Your task to perform on an android device: Go to ESPN.com Image 0: 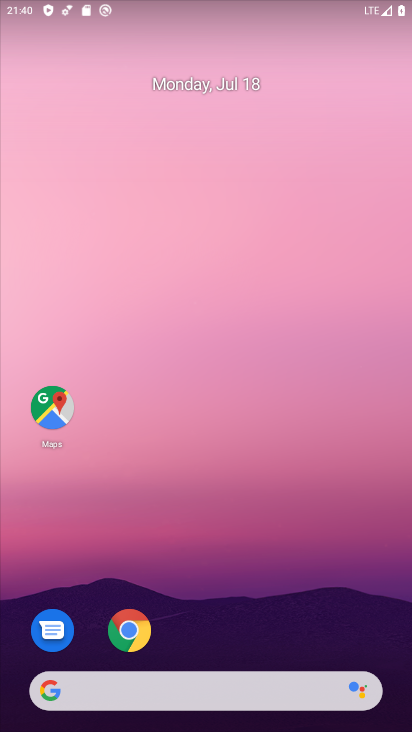
Step 0: click (122, 631)
Your task to perform on an android device: Go to ESPN.com Image 1: 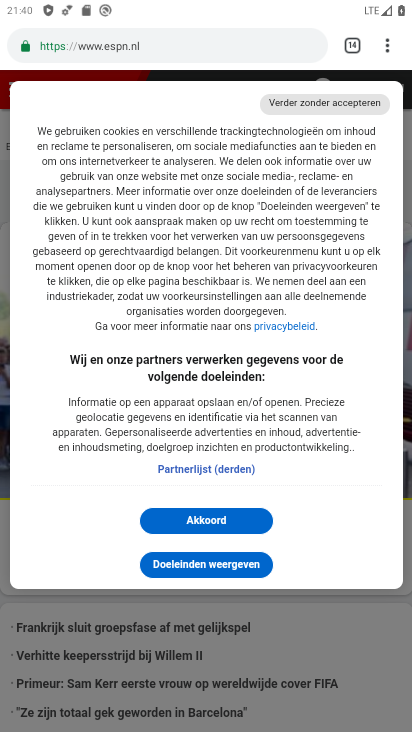
Step 1: click (393, 47)
Your task to perform on an android device: Go to ESPN.com Image 2: 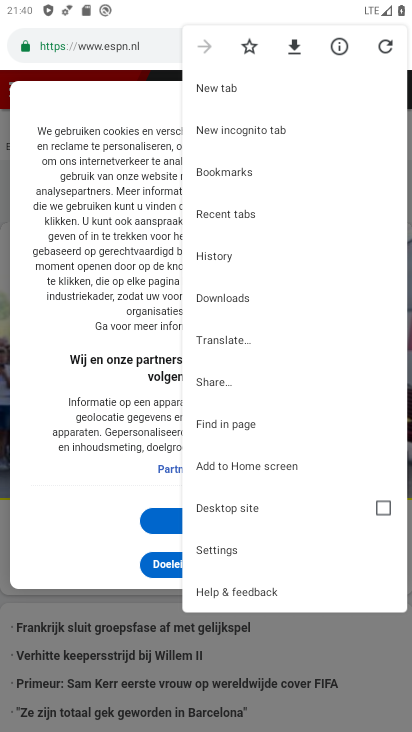
Step 2: click (250, 77)
Your task to perform on an android device: Go to ESPN.com Image 3: 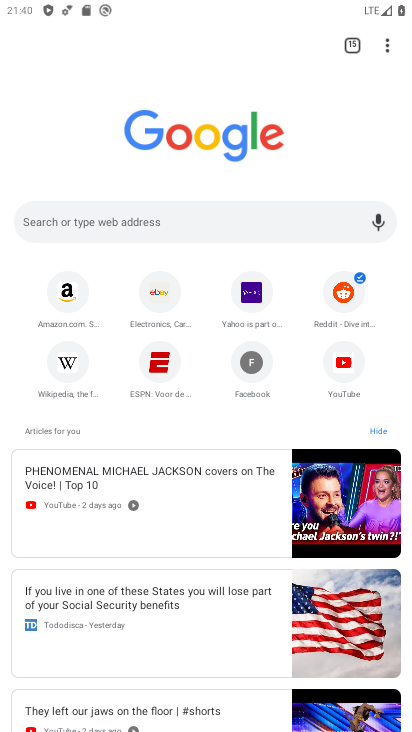
Step 3: click (164, 362)
Your task to perform on an android device: Go to ESPN.com Image 4: 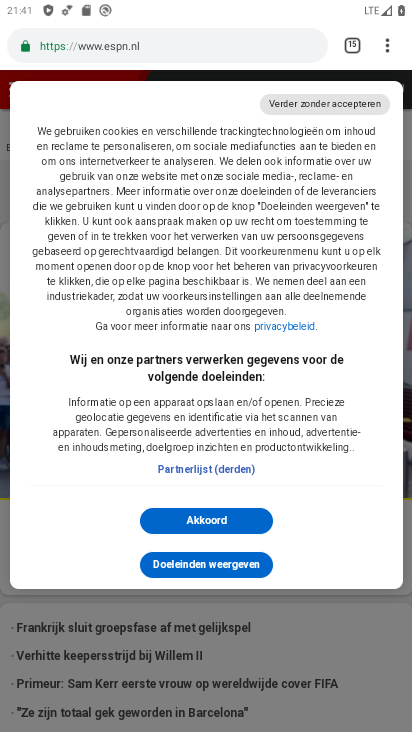
Step 4: task complete